Your task to perform on an android device: snooze an email in the gmail app Image 0: 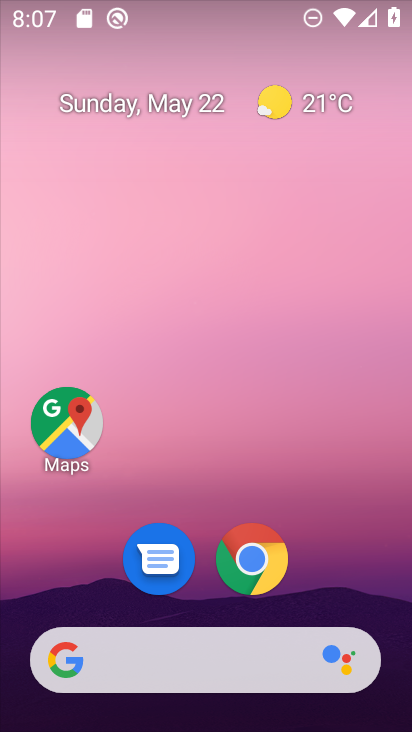
Step 0: press home button
Your task to perform on an android device: snooze an email in the gmail app Image 1: 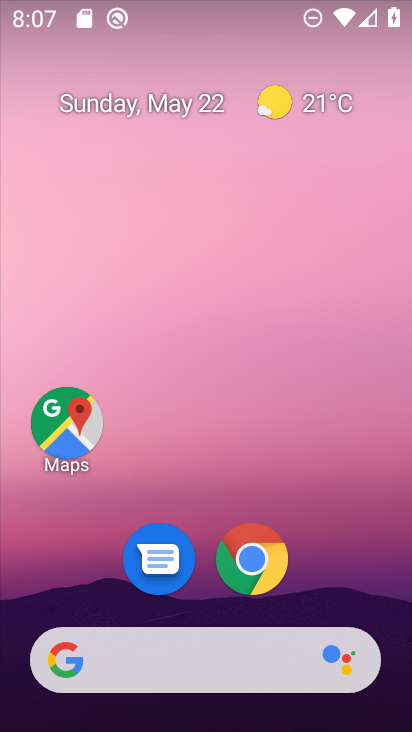
Step 1: drag from (302, 709) to (320, 245)
Your task to perform on an android device: snooze an email in the gmail app Image 2: 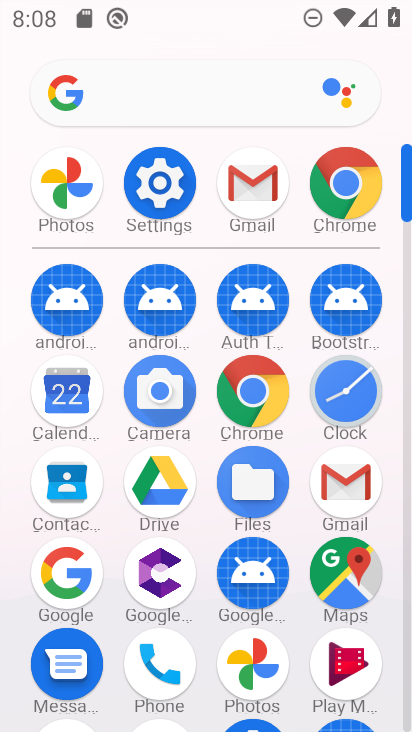
Step 2: click (247, 199)
Your task to perform on an android device: snooze an email in the gmail app Image 3: 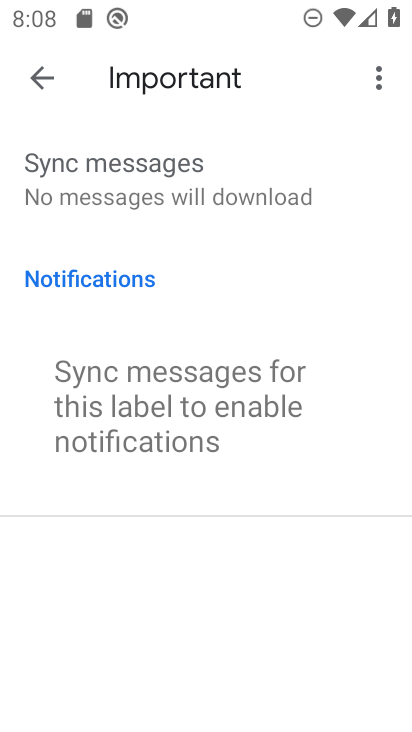
Step 3: click (46, 80)
Your task to perform on an android device: snooze an email in the gmail app Image 4: 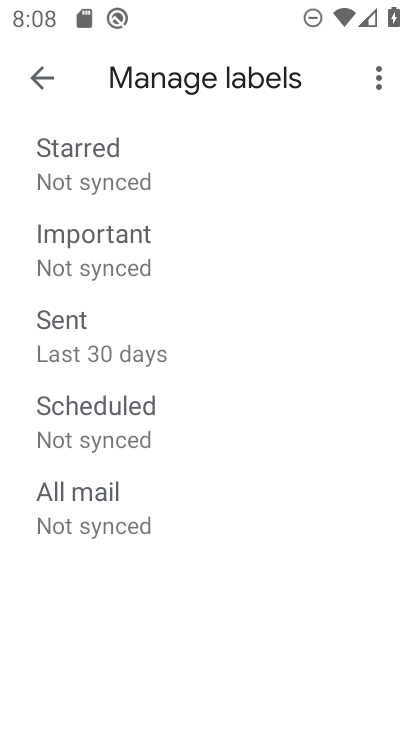
Step 4: click (34, 83)
Your task to perform on an android device: snooze an email in the gmail app Image 5: 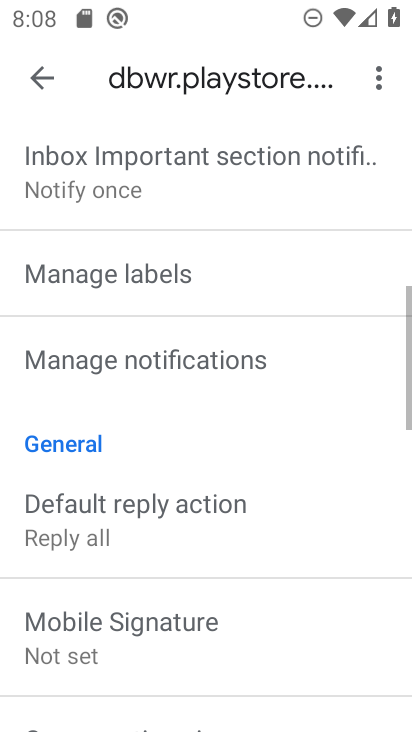
Step 5: click (34, 82)
Your task to perform on an android device: snooze an email in the gmail app Image 6: 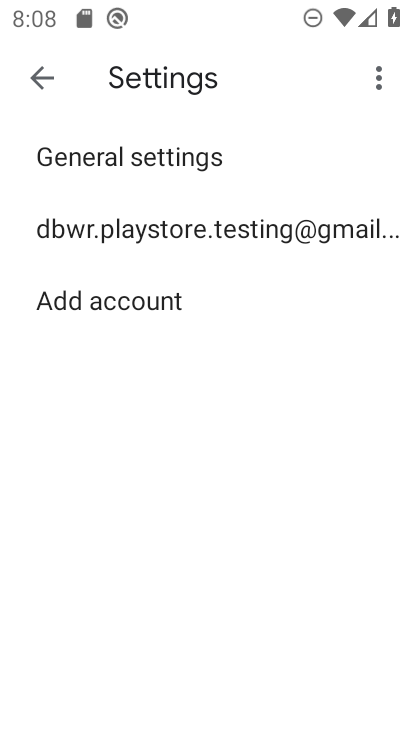
Step 6: click (34, 82)
Your task to perform on an android device: snooze an email in the gmail app Image 7: 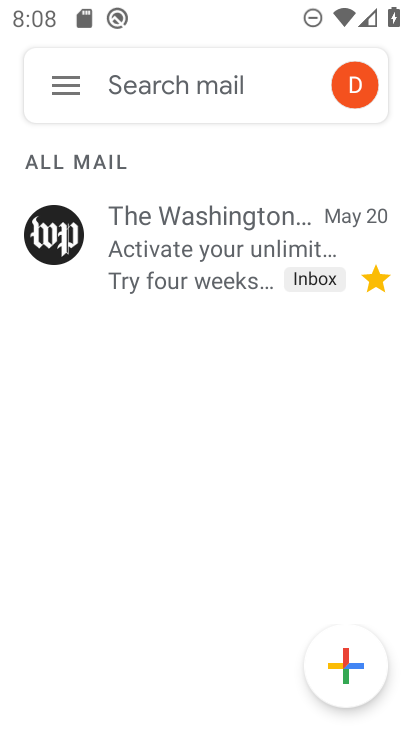
Step 7: click (217, 251)
Your task to perform on an android device: snooze an email in the gmail app Image 8: 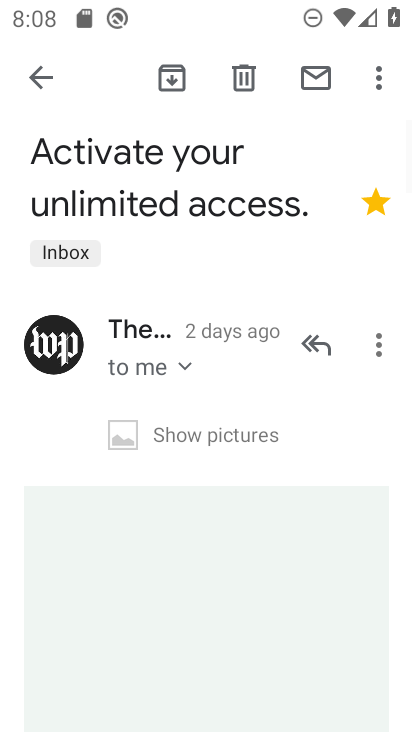
Step 8: click (382, 83)
Your task to perform on an android device: snooze an email in the gmail app Image 9: 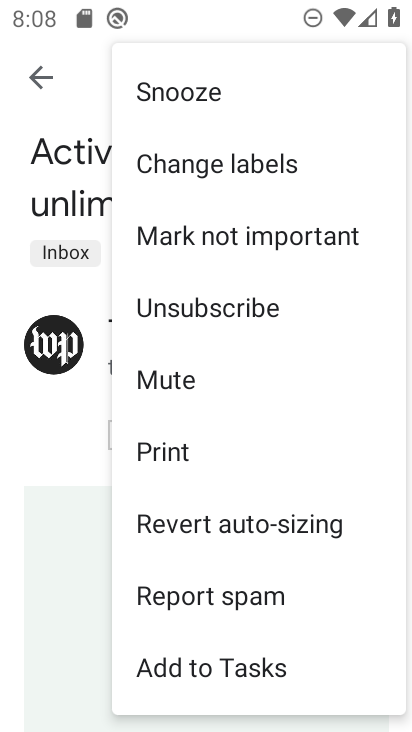
Step 9: click (204, 116)
Your task to perform on an android device: snooze an email in the gmail app Image 10: 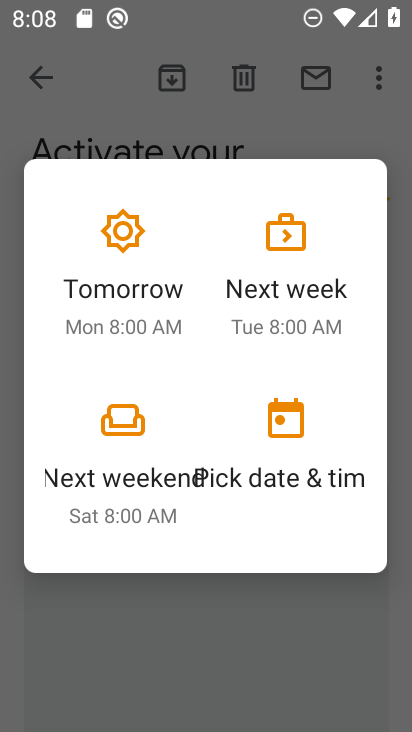
Step 10: click (171, 289)
Your task to perform on an android device: snooze an email in the gmail app Image 11: 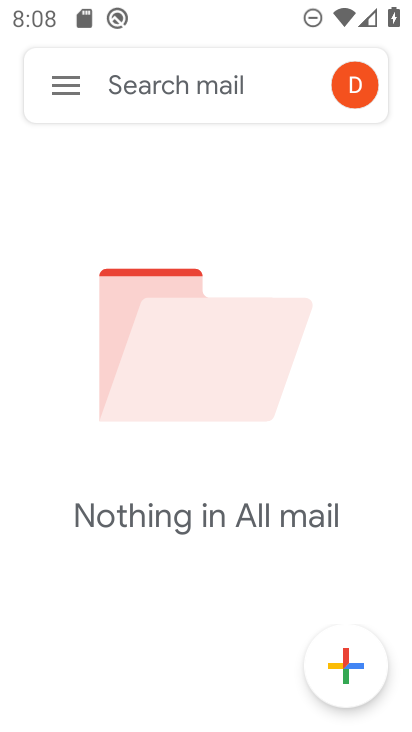
Step 11: task complete